Your task to perform on an android device: Find the nearest electronics store that's open tomorrow Image 0: 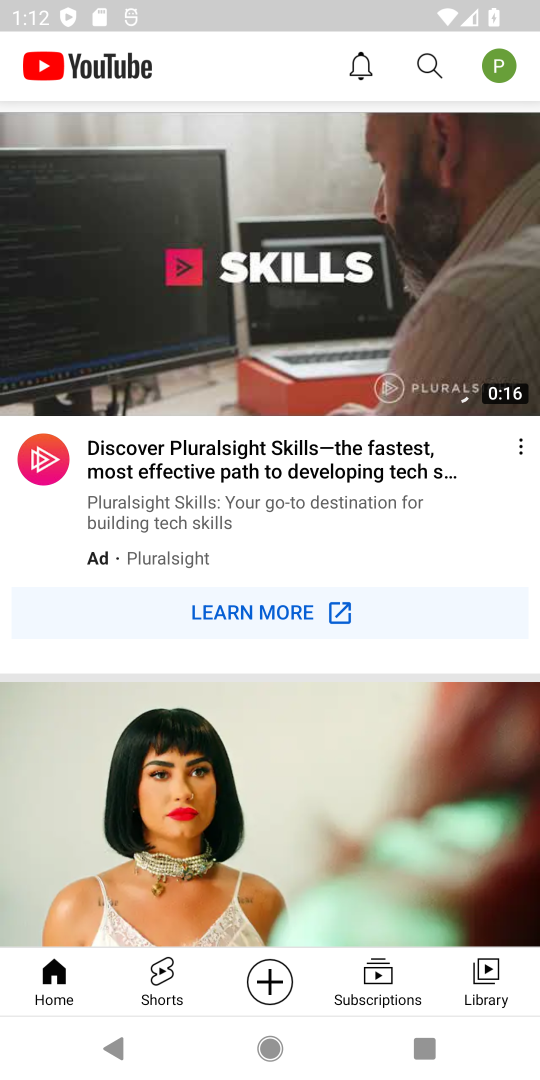
Step 0: press home button
Your task to perform on an android device: Find the nearest electronics store that's open tomorrow Image 1: 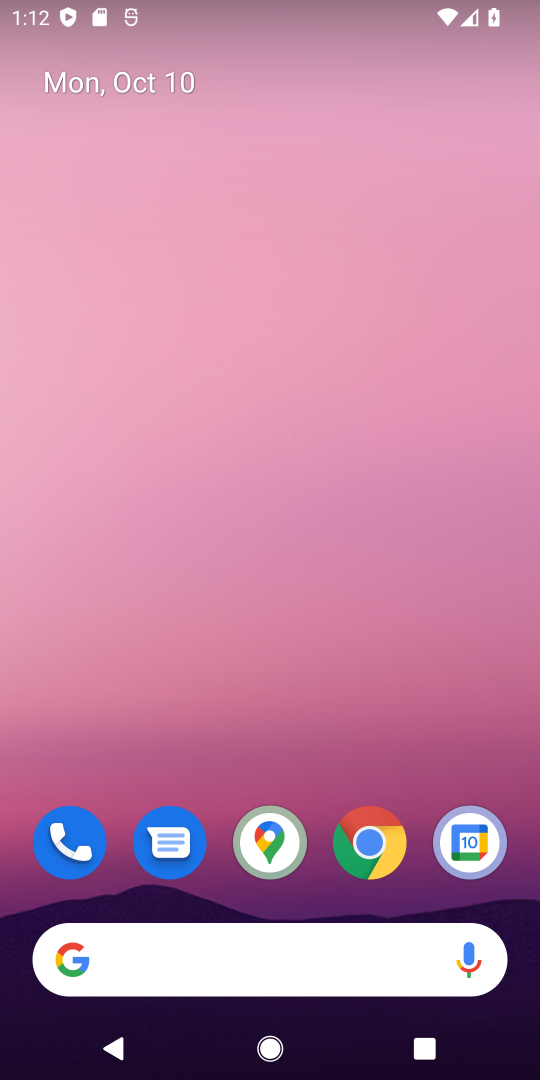
Step 1: click (380, 849)
Your task to perform on an android device: Find the nearest electronics store that's open tomorrow Image 2: 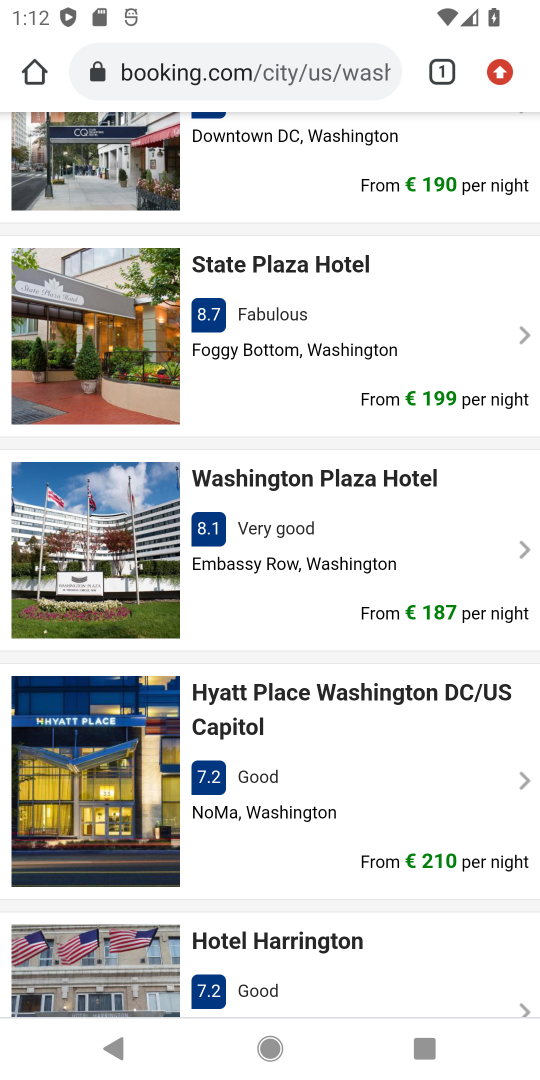
Step 2: click (270, 64)
Your task to perform on an android device: Find the nearest electronics store that's open tomorrow Image 3: 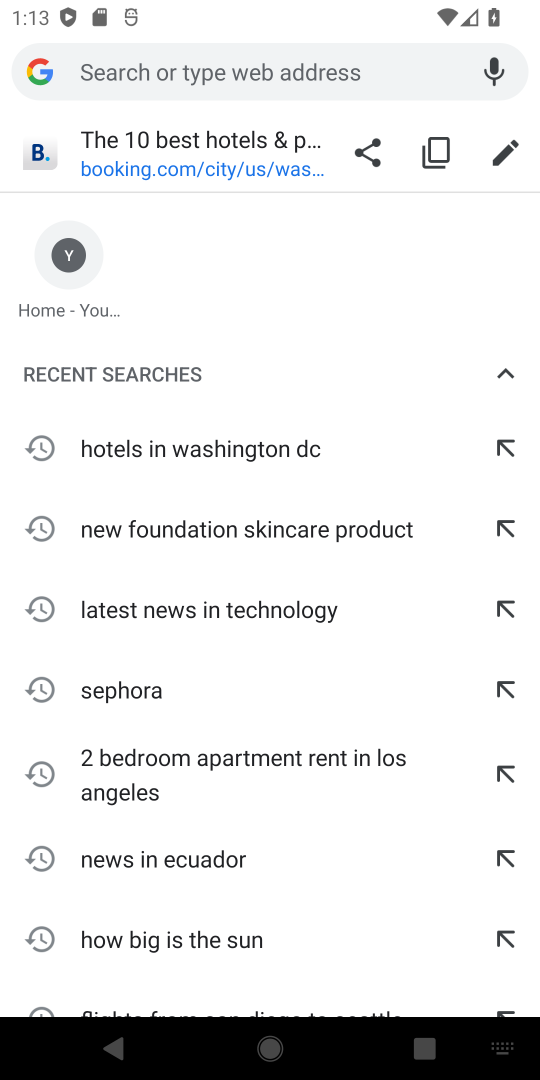
Step 3: type "nearest electronic store that open tomorrow"
Your task to perform on an android device: Find the nearest electronics store that's open tomorrow Image 4: 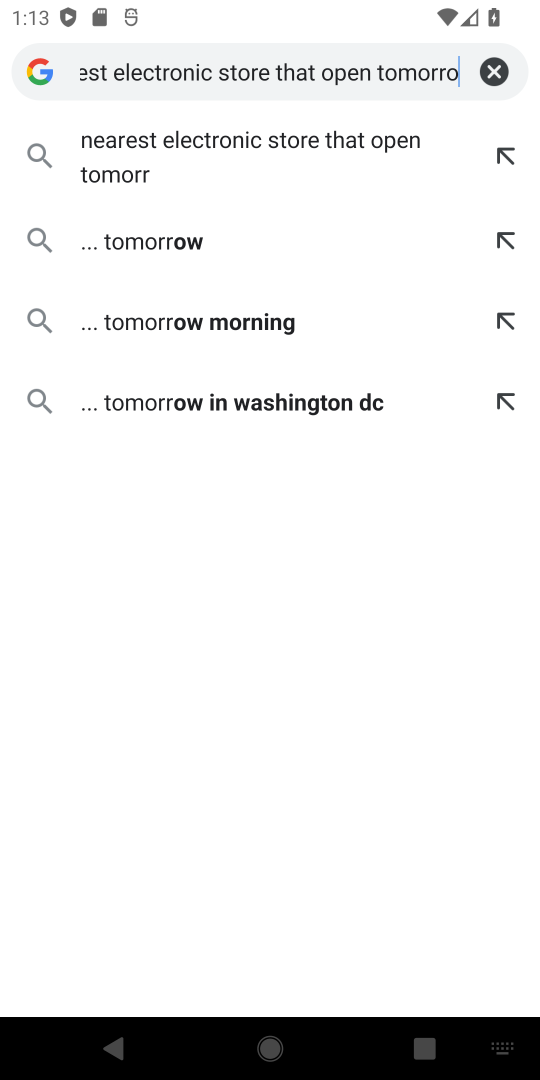
Step 4: type ""
Your task to perform on an android device: Find the nearest electronics store that's open tomorrow Image 5: 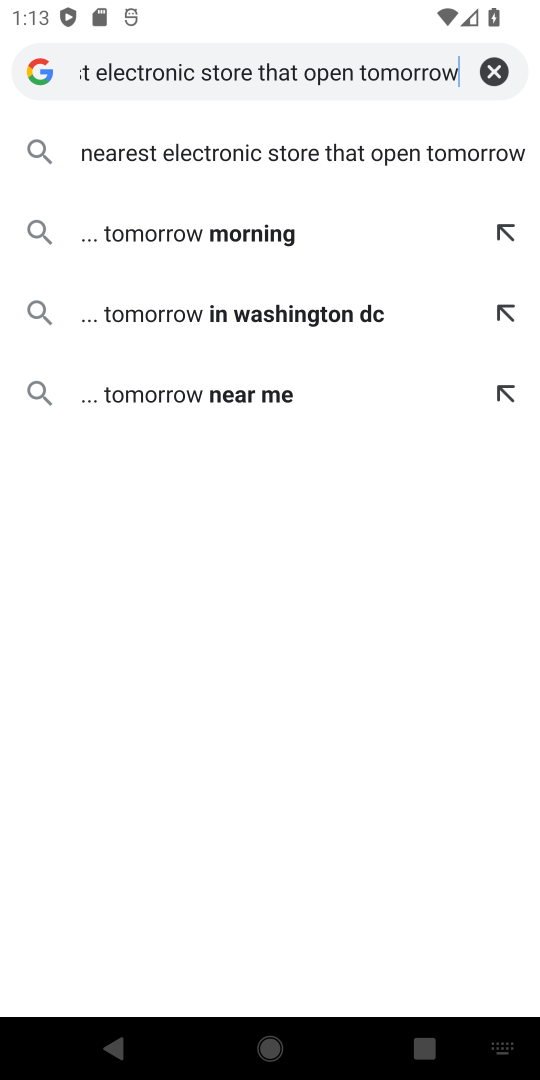
Step 5: press enter
Your task to perform on an android device: Find the nearest electronics store that's open tomorrow Image 6: 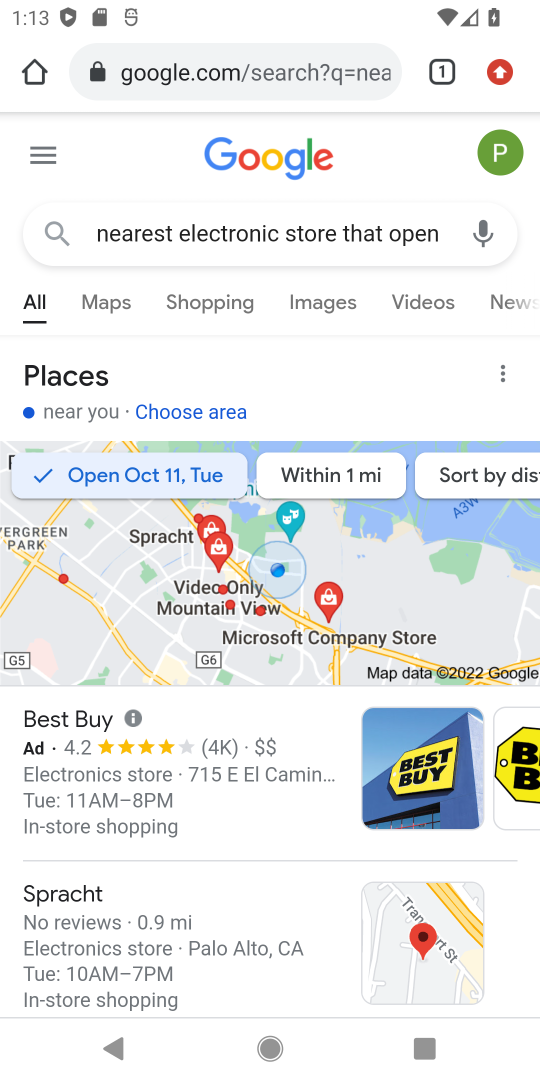
Step 6: task complete